Your task to perform on an android device: check out phone information Image 0: 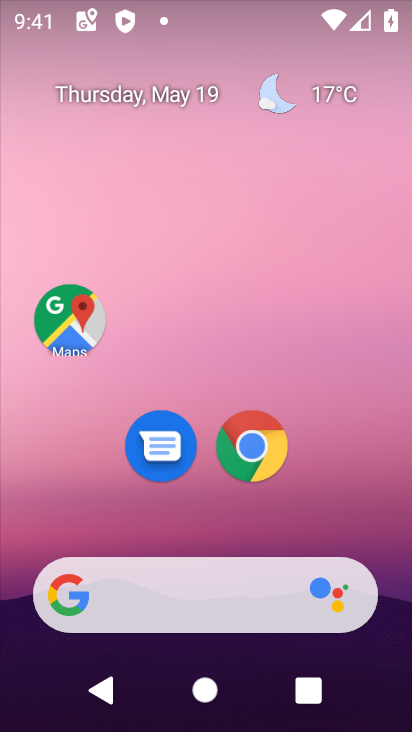
Step 0: drag from (194, 542) to (226, 8)
Your task to perform on an android device: check out phone information Image 1: 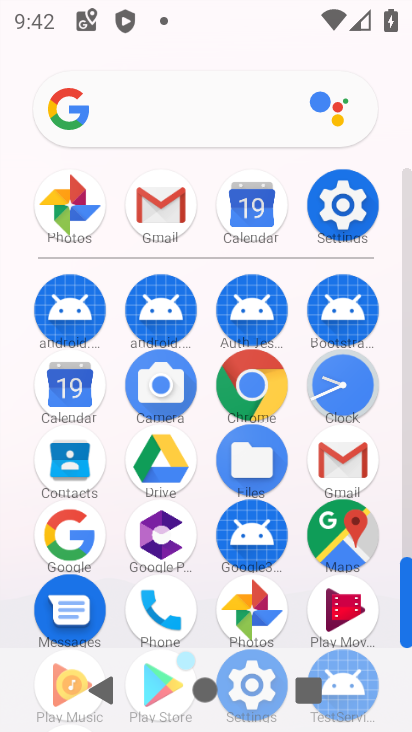
Step 1: click (363, 224)
Your task to perform on an android device: check out phone information Image 2: 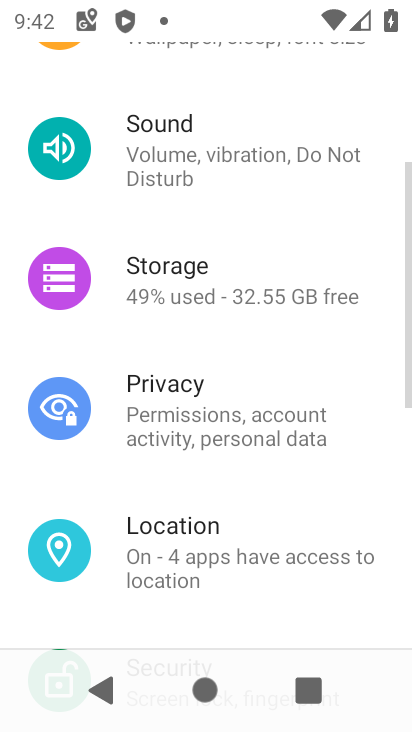
Step 2: drag from (214, 514) to (277, 18)
Your task to perform on an android device: check out phone information Image 3: 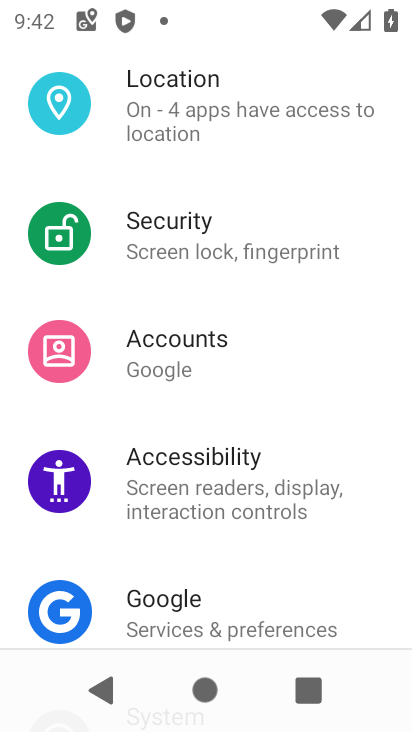
Step 3: drag from (240, 489) to (281, 126)
Your task to perform on an android device: check out phone information Image 4: 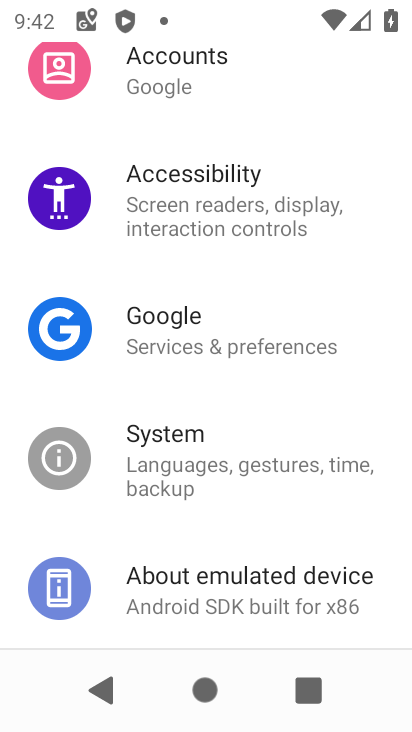
Step 4: drag from (190, 605) to (237, 244)
Your task to perform on an android device: check out phone information Image 5: 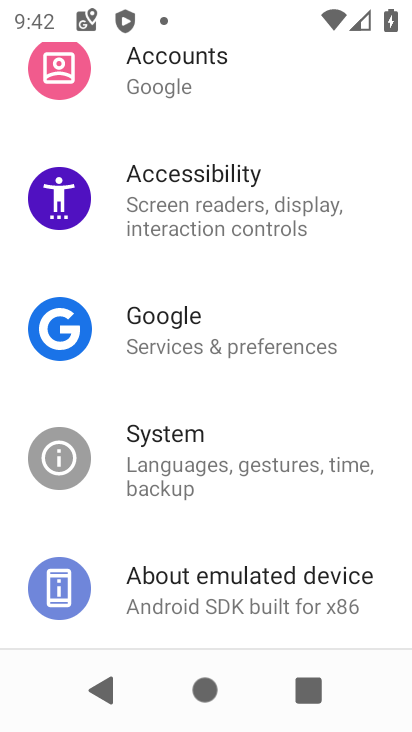
Step 5: click (241, 609)
Your task to perform on an android device: check out phone information Image 6: 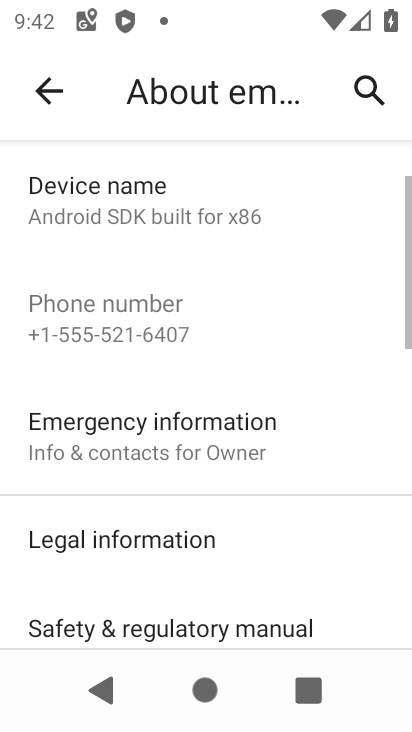
Step 6: task complete